Your task to perform on an android device: Open the Play Movies app and select the watchlist tab. Image 0: 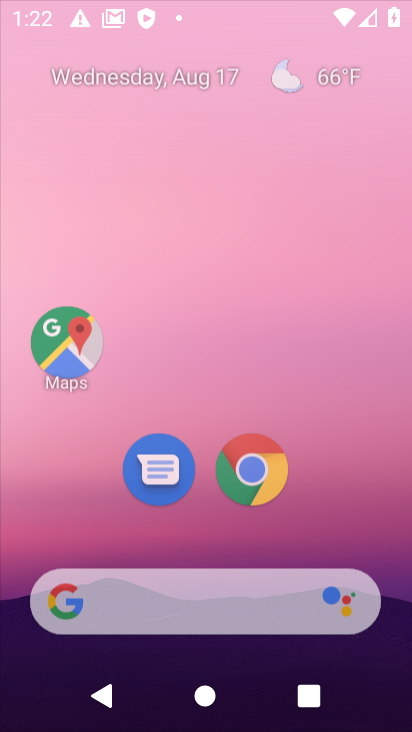
Step 0: press home button
Your task to perform on an android device: Open the Play Movies app and select the watchlist tab. Image 1: 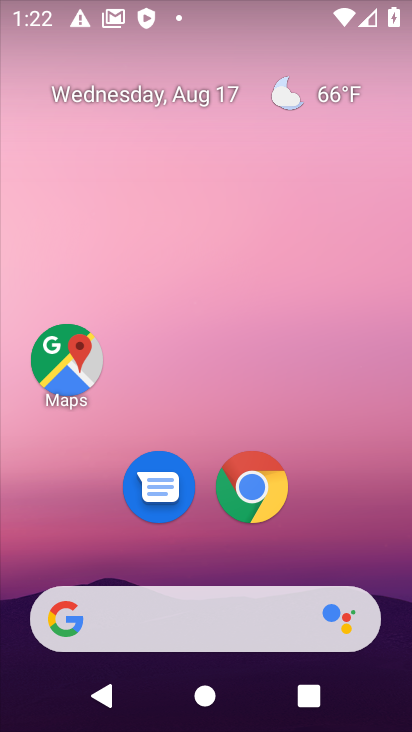
Step 1: drag from (223, 497) to (247, 17)
Your task to perform on an android device: Open the Play Movies app and select the watchlist tab. Image 2: 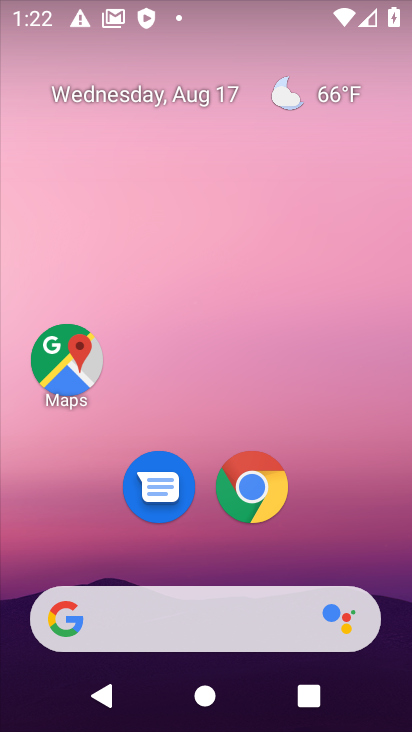
Step 2: drag from (365, 538) to (391, 0)
Your task to perform on an android device: Open the Play Movies app and select the watchlist tab. Image 3: 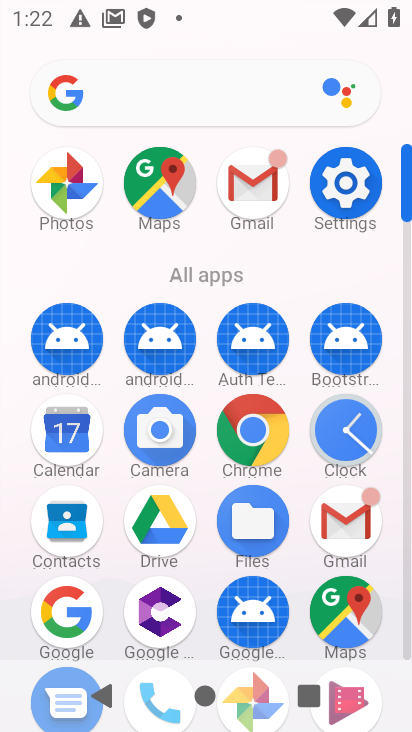
Step 3: drag from (393, 643) to (410, 147)
Your task to perform on an android device: Open the Play Movies app and select the watchlist tab. Image 4: 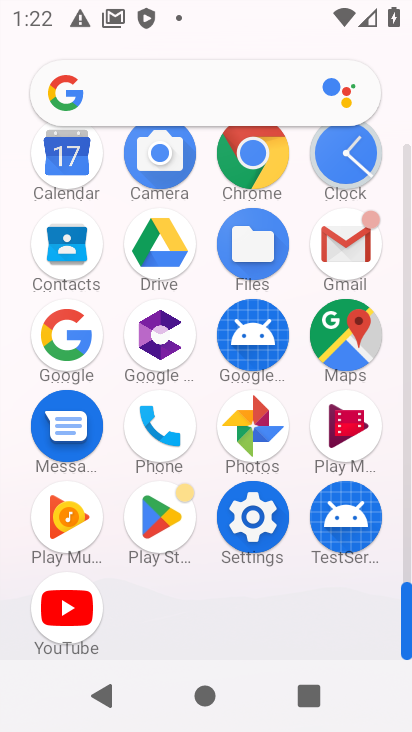
Step 4: click (352, 418)
Your task to perform on an android device: Open the Play Movies app and select the watchlist tab. Image 5: 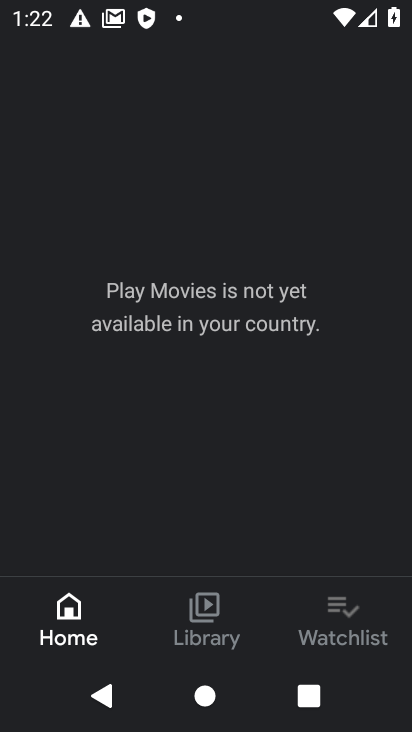
Step 5: click (340, 623)
Your task to perform on an android device: Open the Play Movies app and select the watchlist tab. Image 6: 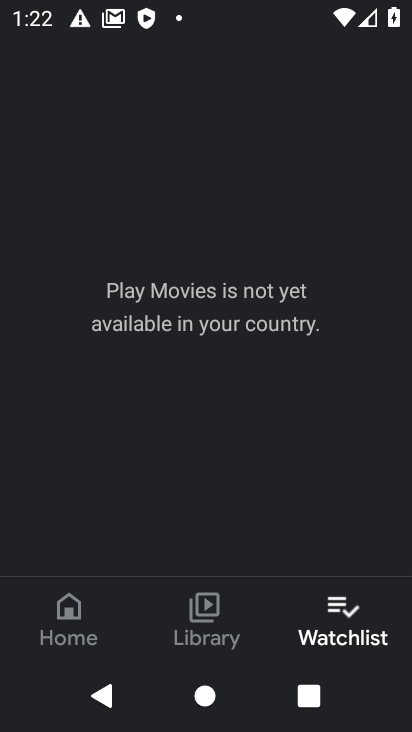
Step 6: task complete